Your task to perform on an android device: turn notification dots on Image 0: 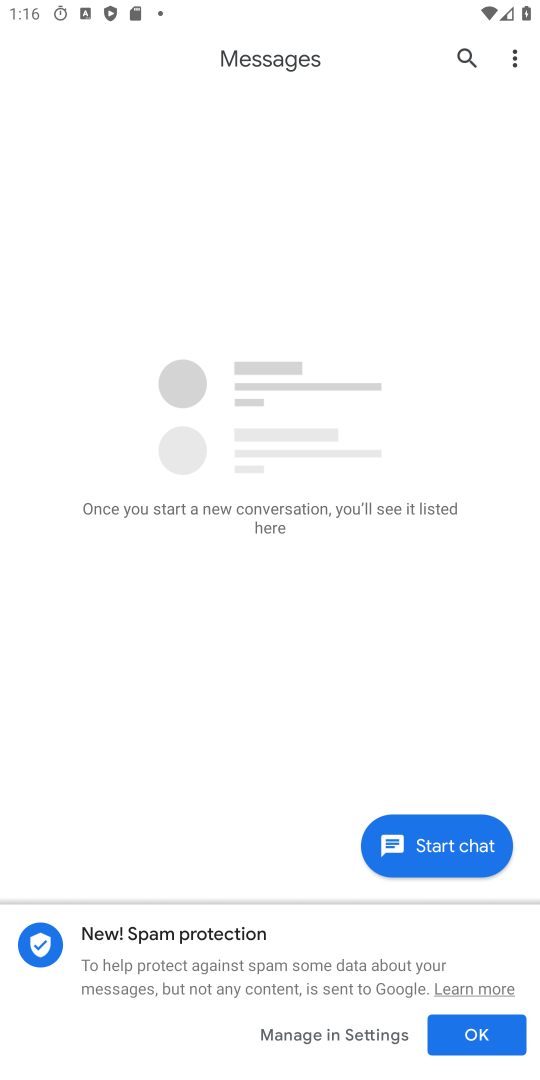
Step 0: press home button
Your task to perform on an android device: turn notification dots on Image 1: 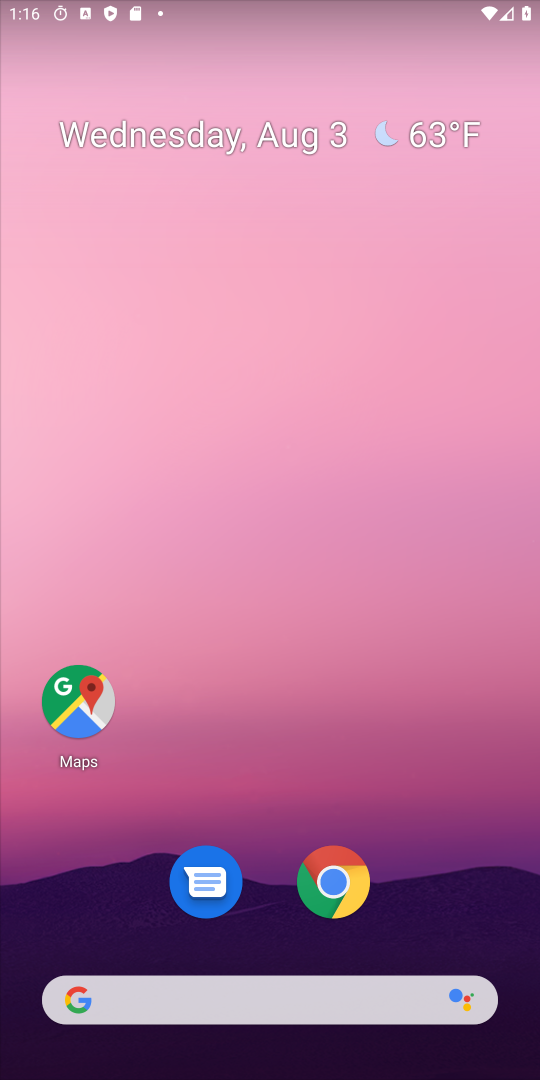
Step 1: drag from (326, 774) to (492, 25)
Your task to perform on an android device: turn notification dots on Image 2: 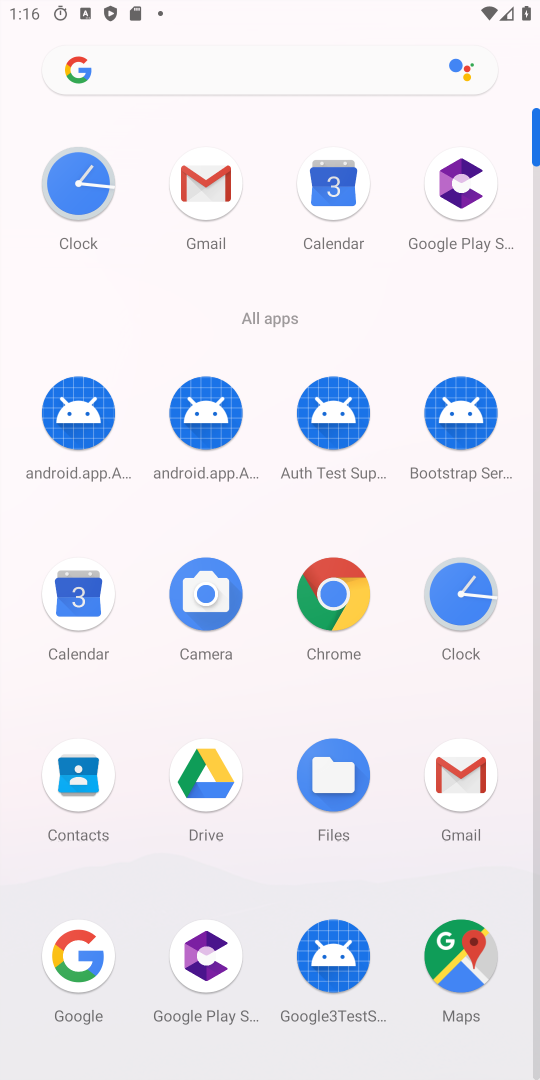
Step 2: drag from (262, 311) to (281, 7)
Your task to perform on an android device: turn notification dots on Image 3: 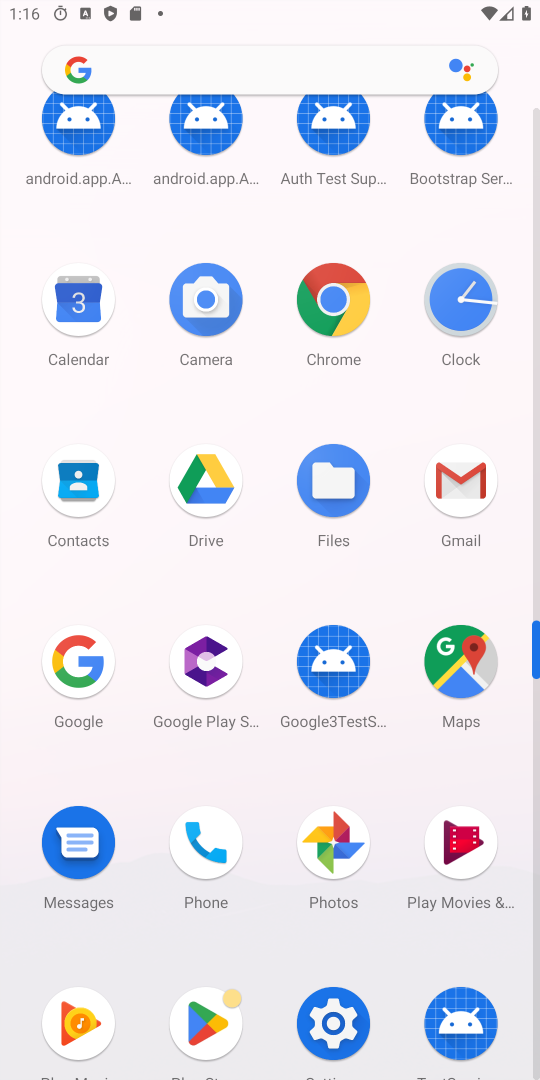
Step 3: click (339, 1027)
Your task to perform on an android device: turn notification dots on Image 4: 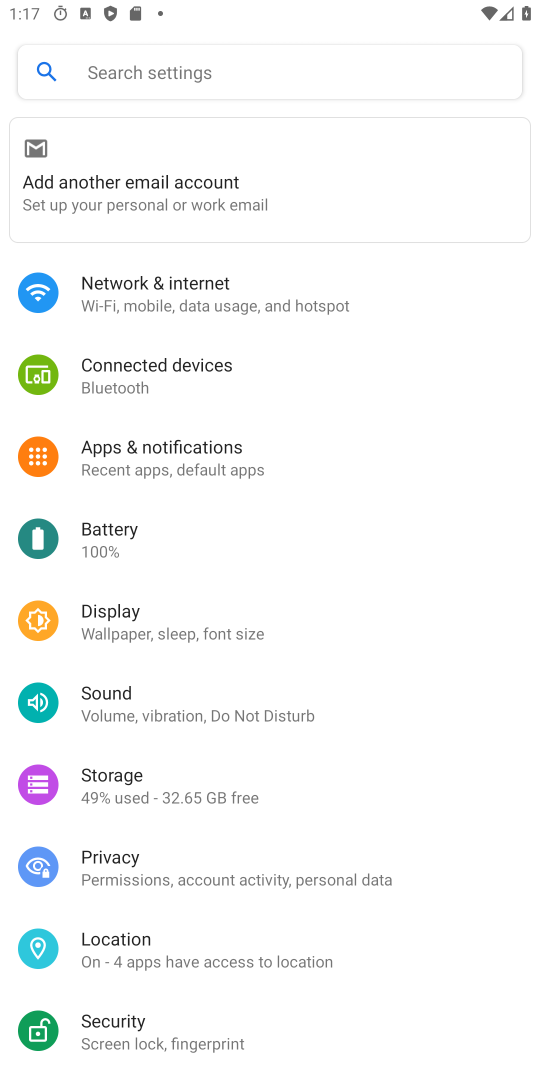
Step 4: click (297, 470)
Your task to perform on an android device: turn notification dots on Image 5: 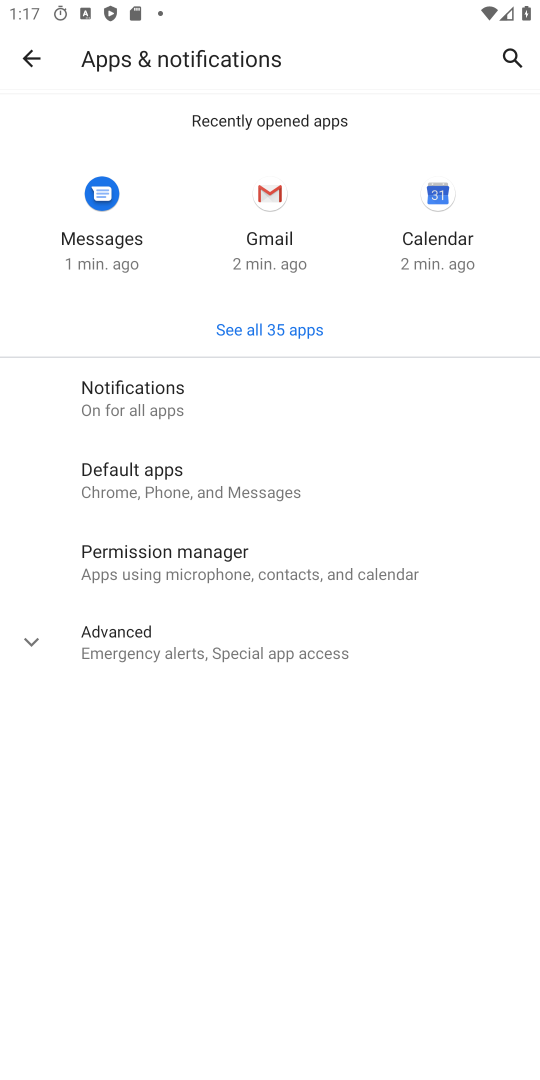
Step 5: click (270, 449)
Your task to perform on an android device: turn notification dots on Image 6: 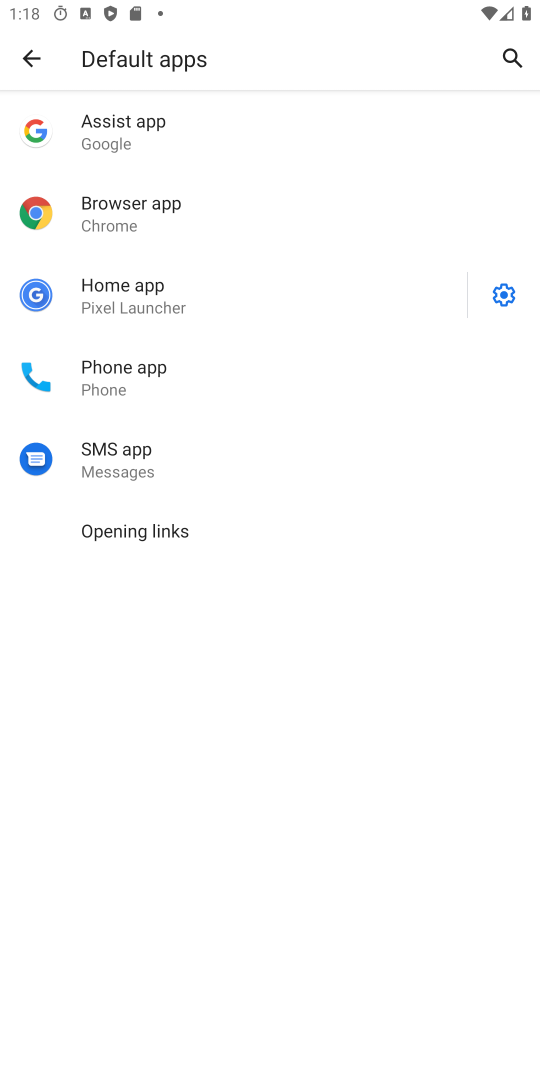
Step 6: press home button
Your task to perform on an android device: turn notification dots on Image 7: 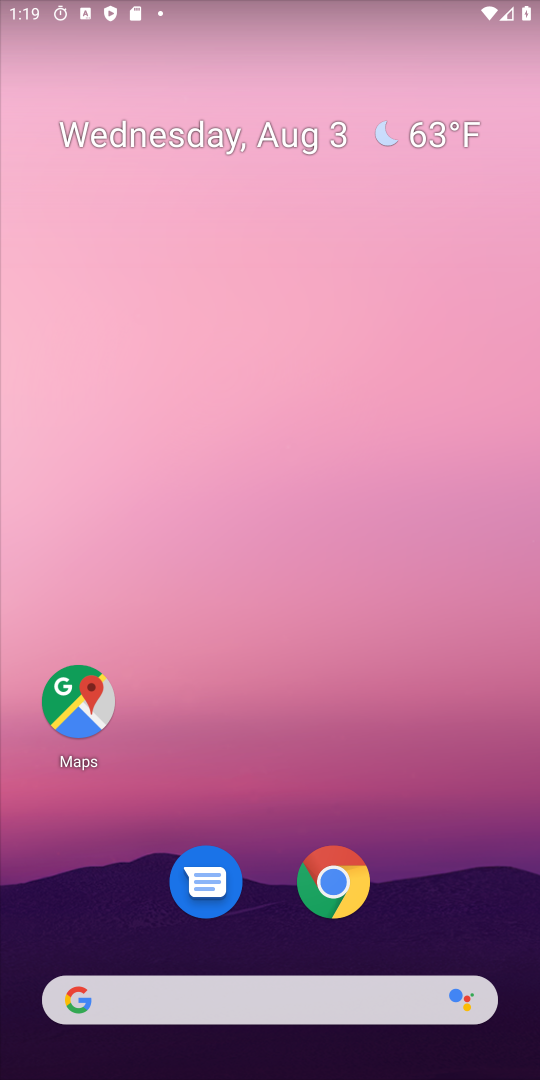
Step 7: drag from (340, 791) to (519, 4)
Your task to perform on an android device: turn notification dots on Image 8: 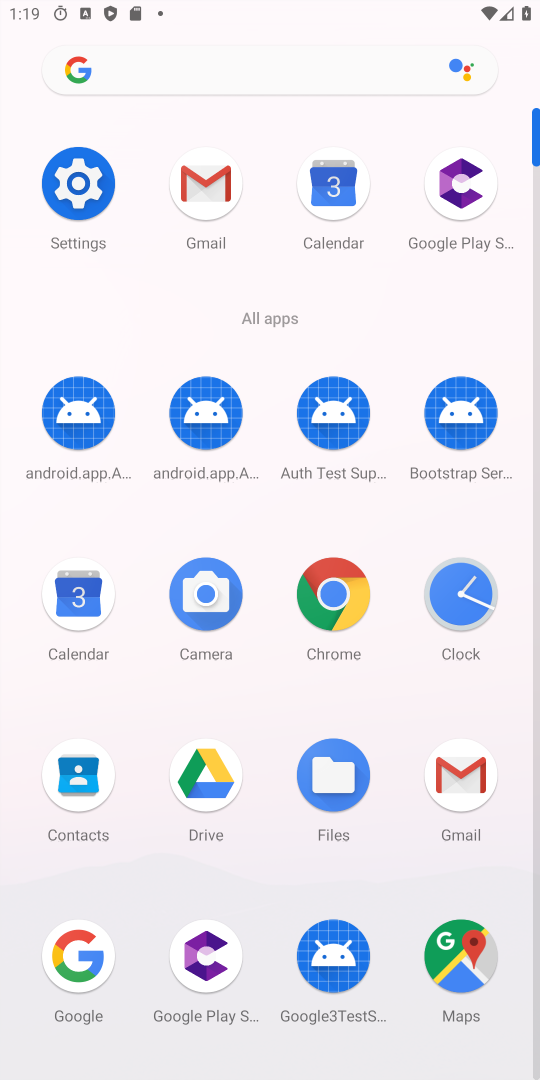
Step 8: click (96, 200)
Your task to perform on an android device: turn notification dots on Image 9: 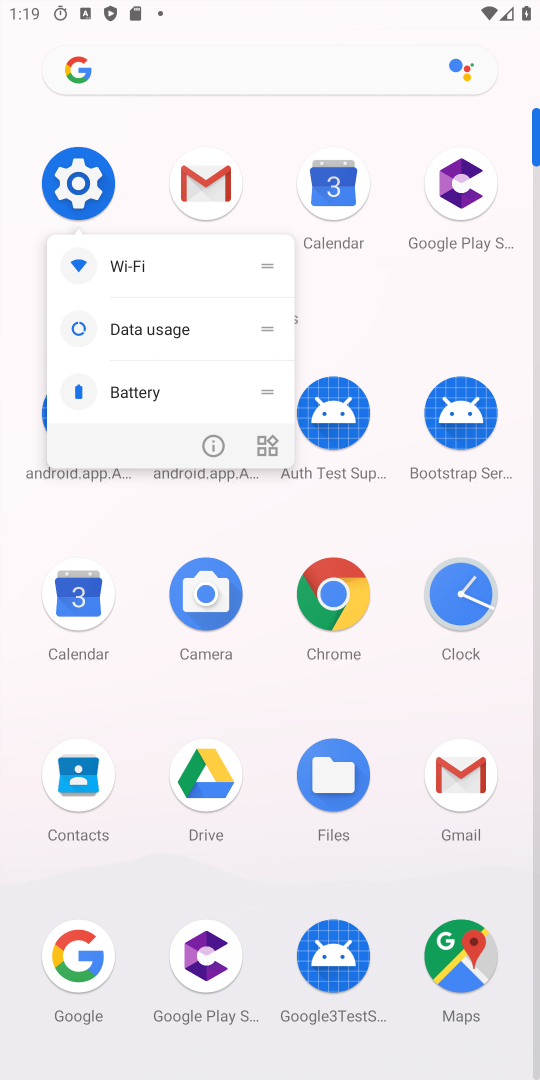
Step 9: click (102, 205)
Your task to perform on an android device: turn notification dots on Image 10: 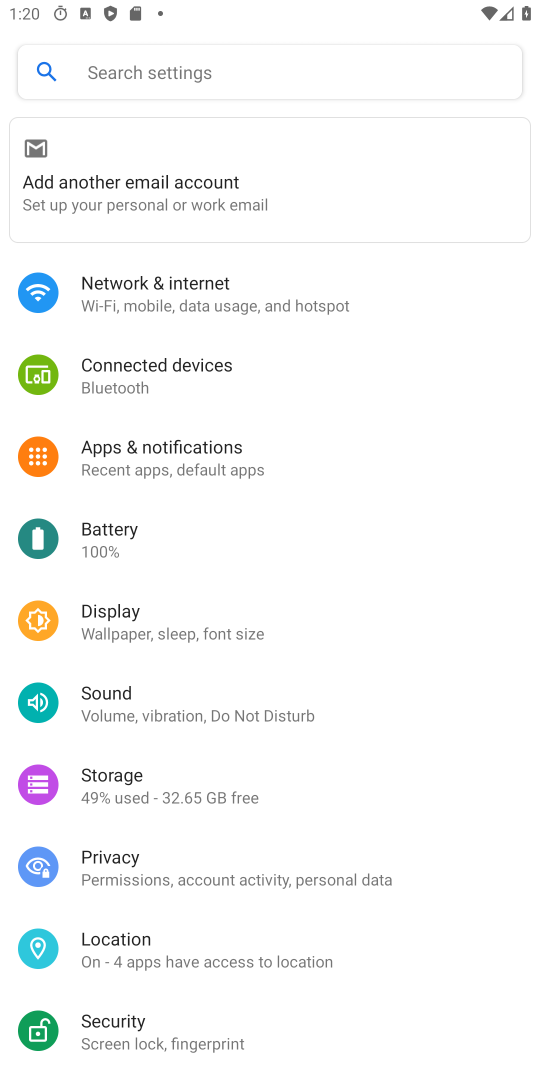
Step 10: click (277, 444)
Your task to perform on an android device: turn notification dots on Image 11: 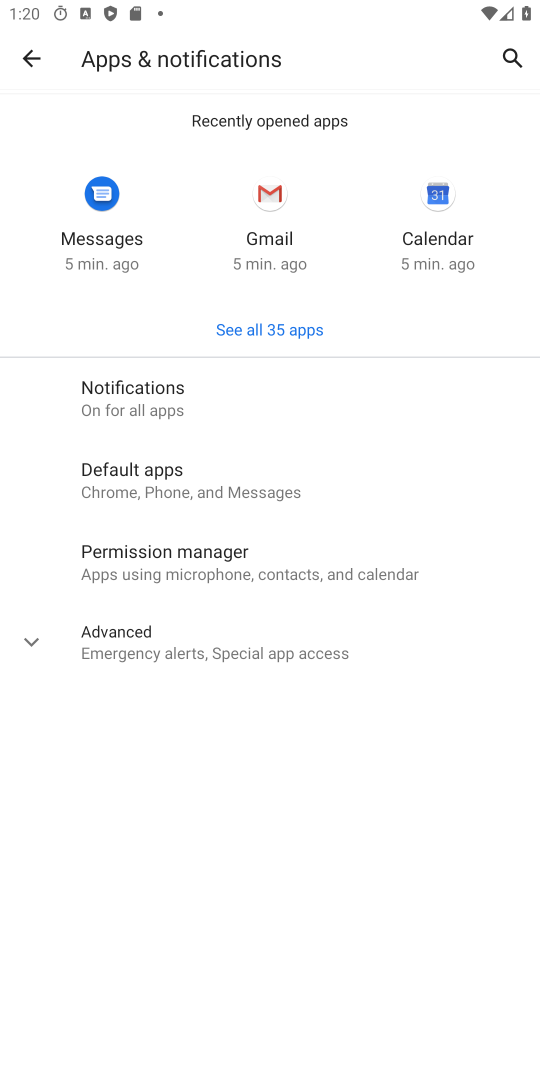
Step 11: click (241, 394)
Your task to perform on an android device: turn notification dots on Image 12: 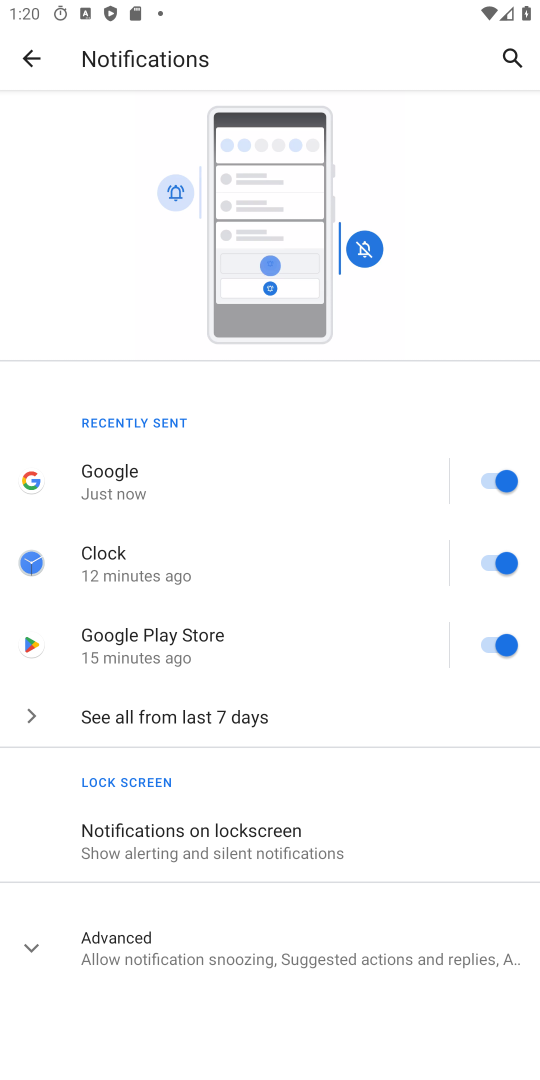
Step 12: click (315, 975)
Your task to perform on an android device: turn notification dots on Image 13: 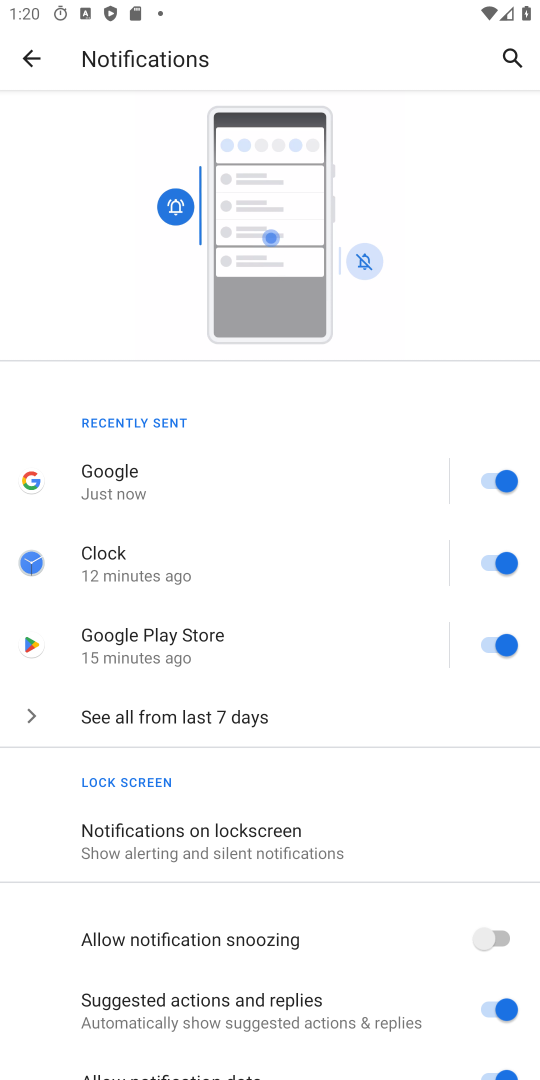
Step 13: drag from (348, 900) to (388, 240)
Your task to perform on an android device: turn notification dots on Image 14: 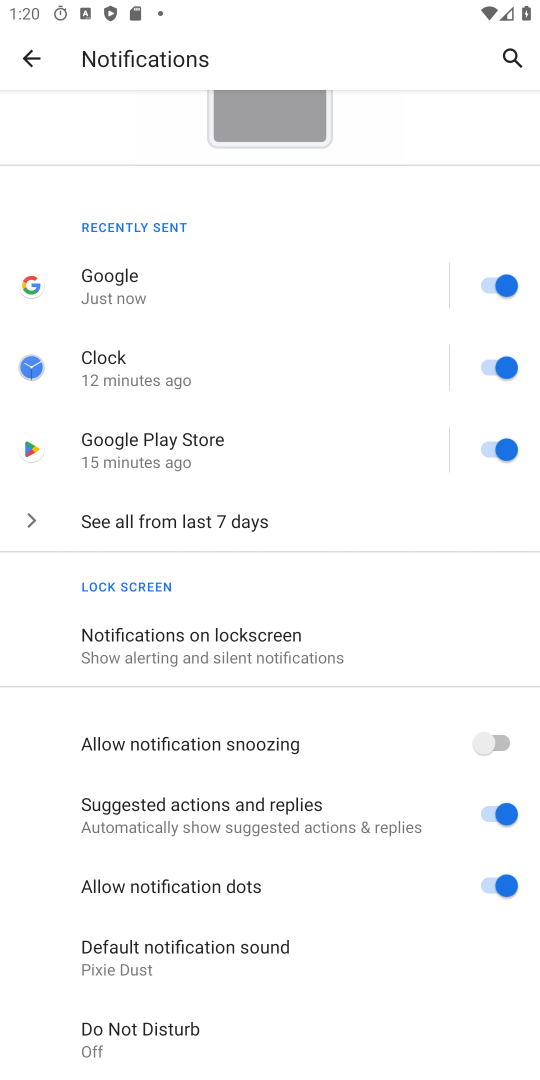
Step 14: click (513, 890)
Your task to perform on an android device: turn notification dots on Image 15: 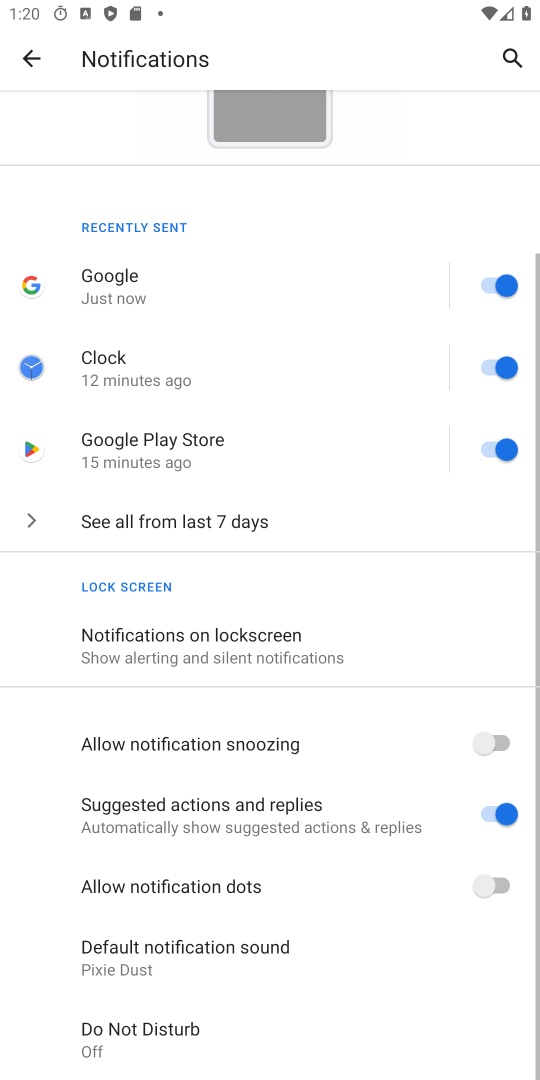
Step 15: click (511, 887)
Your task to perform on an android device: turn notification dots on Image 16: 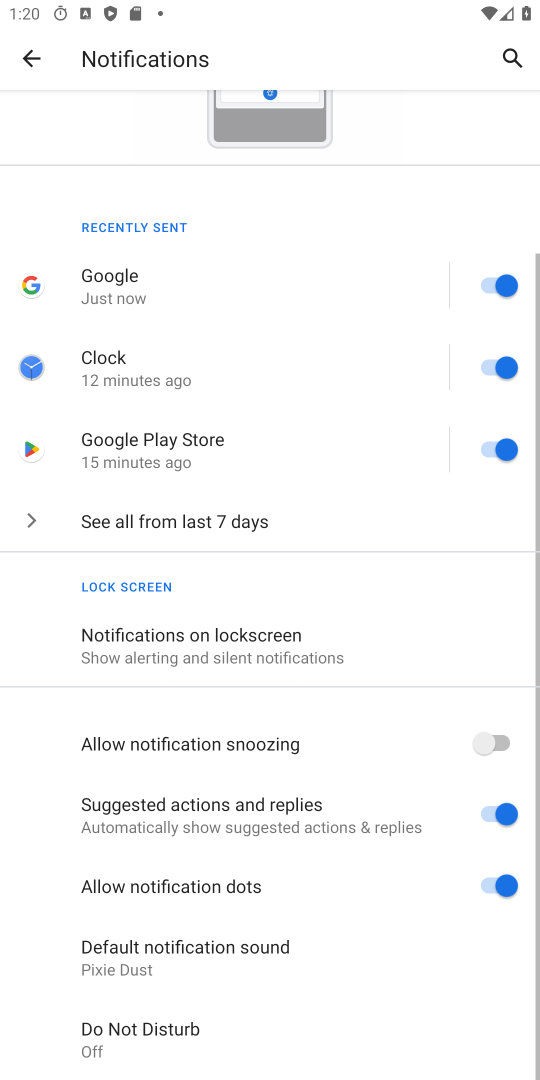
Step 16: task complete